Your task to perform on an android device: open app "Expedia: Hotels, Flights & Car" (install if not already installed) Image 0: 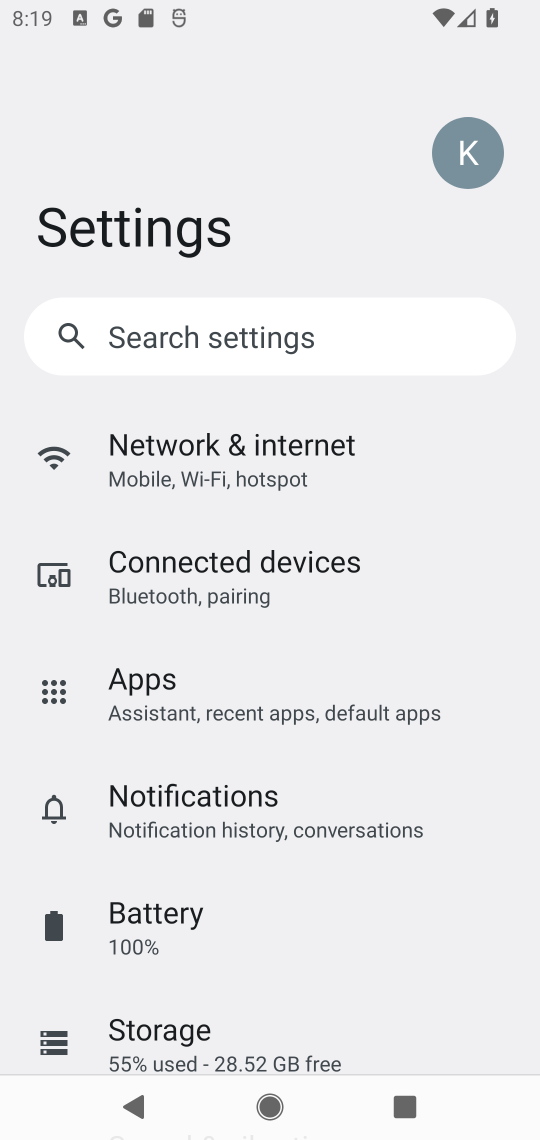
Step 0: press home button
Your task to perform on an android device: open app "Expedia: Hotels, Flights & Car" (install if not already installed) Image 1: 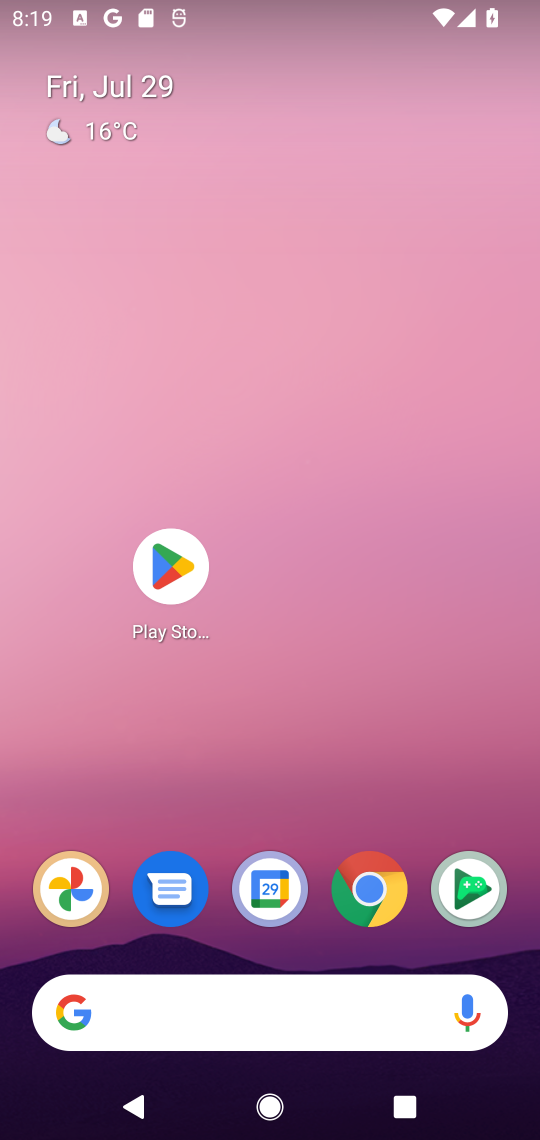
Step 1: click (170, 565)
Your task to perform on an android device: open app "Expedia: Hotels, Flights & Car" (install if not already installed) Image 2: 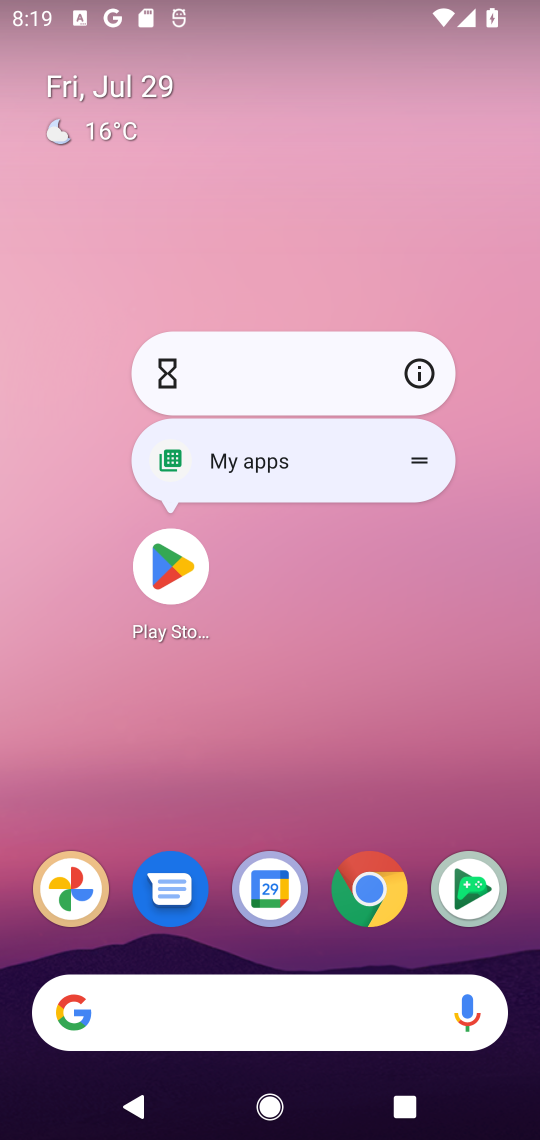
Step 2: click (170, 567)
Your task to perform on an android device: open app "Expedia: Hotels, Flights & Car" (install if not already installed) Image 3: 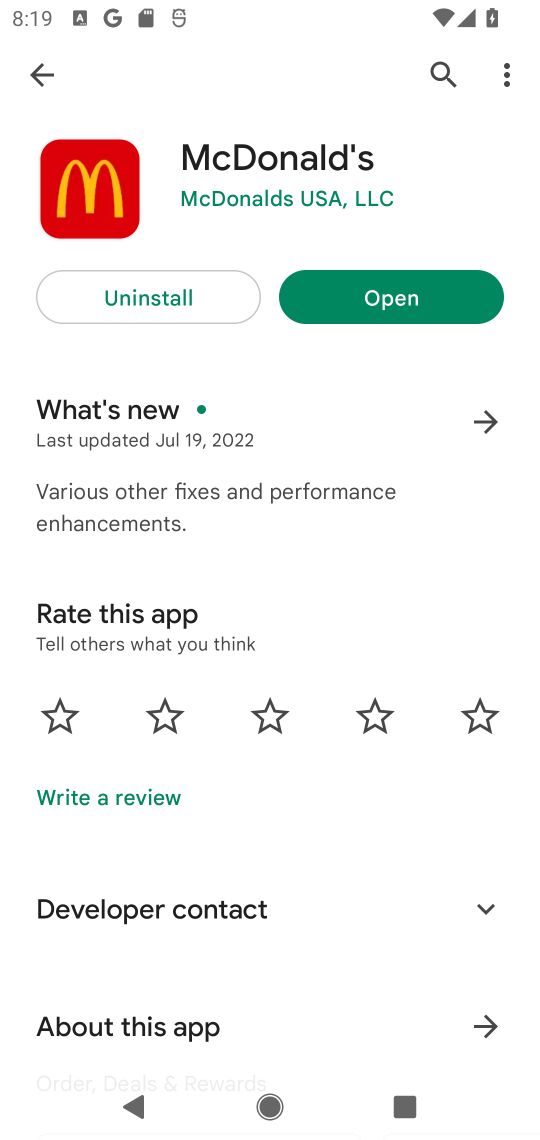
Step 3: click (442, 75)
Your task to perform on an android device: open app "Expedia: Hotels, Flights & Car" (install if not already installed) Image 4: 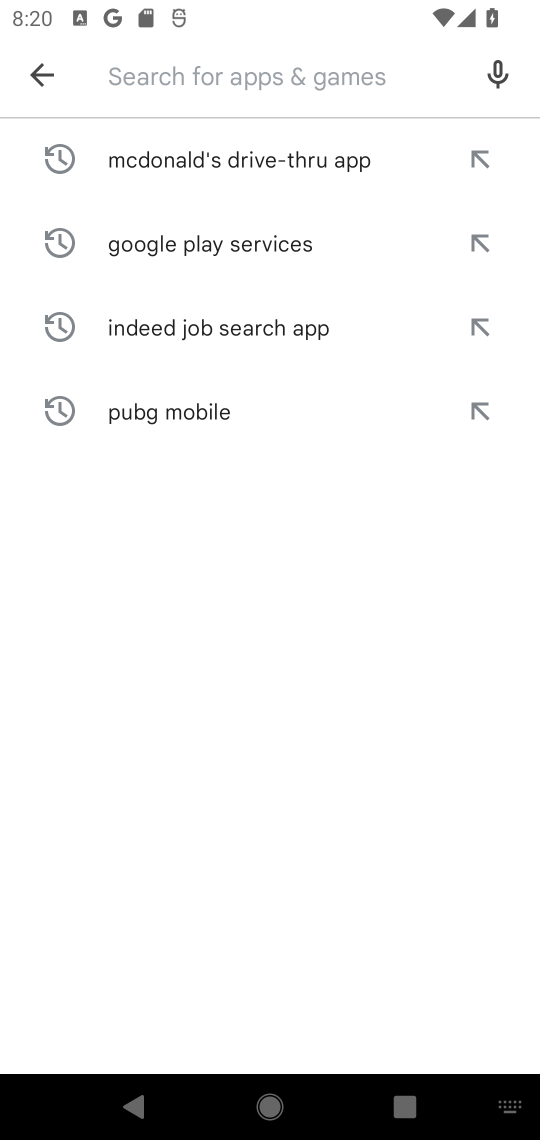
Step 4: type "Expedia: Hotels, Flights & Car"
Your task to perform on an android device: open app "Expedia: Hotels, Flights & Car" (install if not already installed) Image 5: 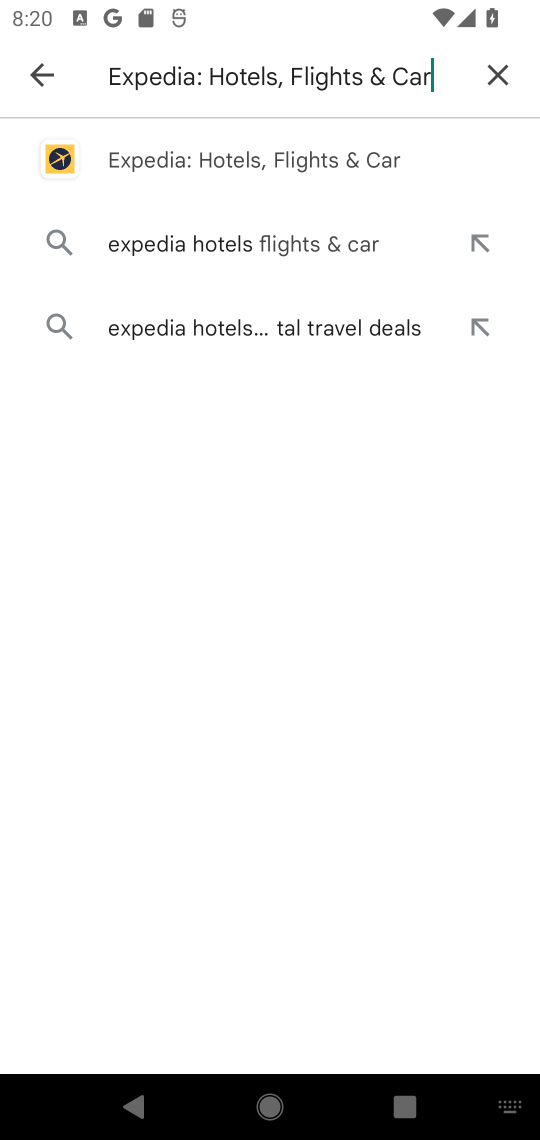
Step 5: click (300, 162)
Your task to perform on an android device: open app "Expedia: Hotels, Flights & Car" (install if not already installed) Image 6: 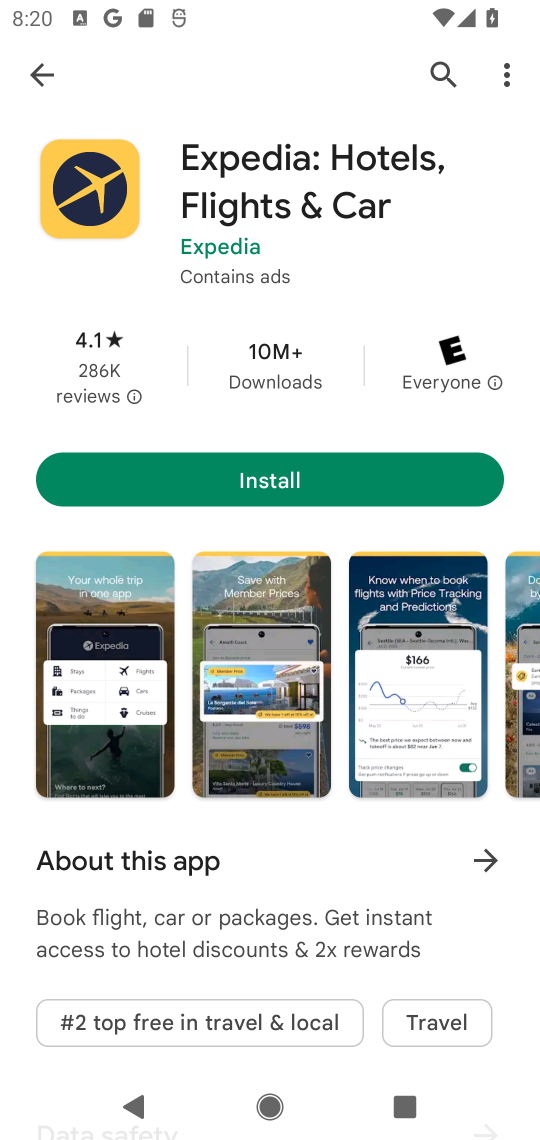
Step 6: click (260, 471)
Your task to perform on an android device: open app "Expedia: Hotels, Flights & Car" (install if not already installed) Image 7: 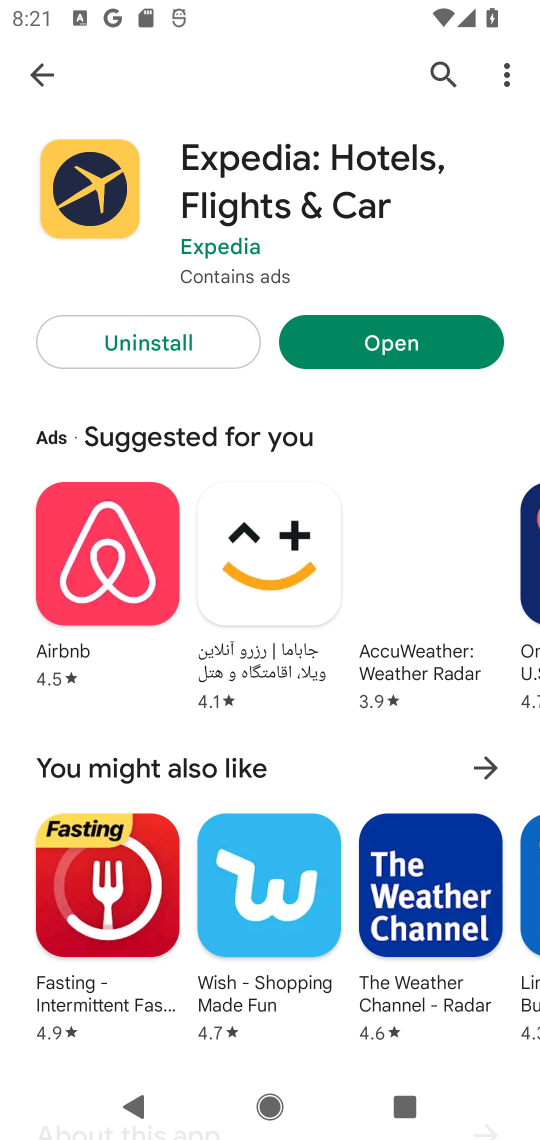
Step 7: click (401, 351)
Your task to perform on an android device: open app "Expedia: Hotels, Flights & Car" (install if not already installed) Image 8: 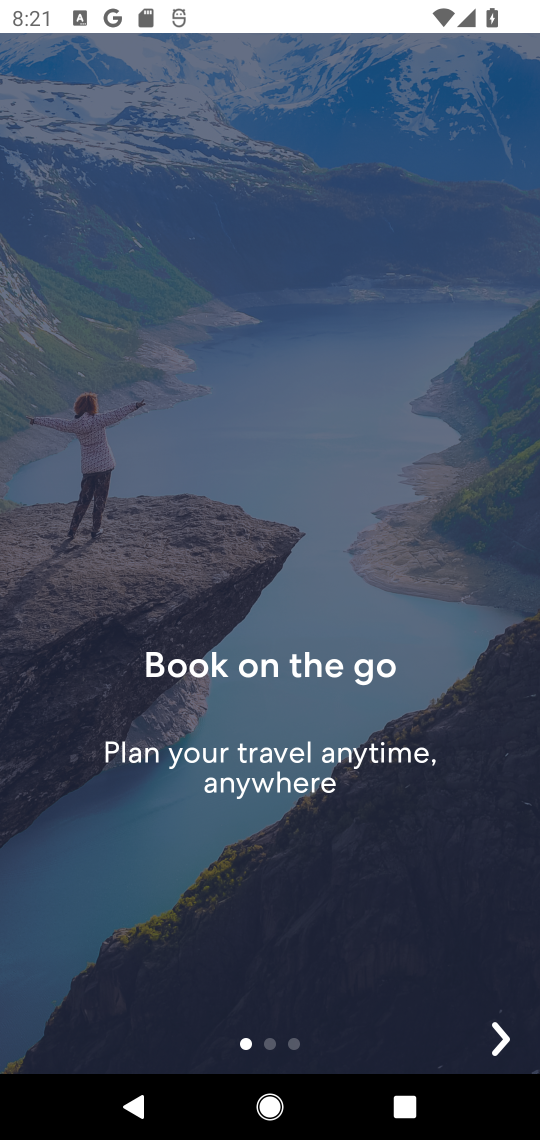
Step 8: task complete